Your task to perform on an android device: Search for pizza restaurants on Maps Image 0: 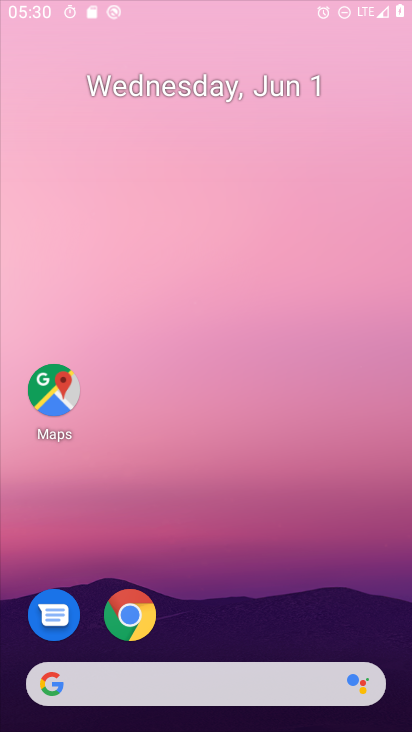
Step 0: drag from (336, 0) to (270, 11)
Your task to perform on an android device: Search for pizza restaurants on Maps Image 1: 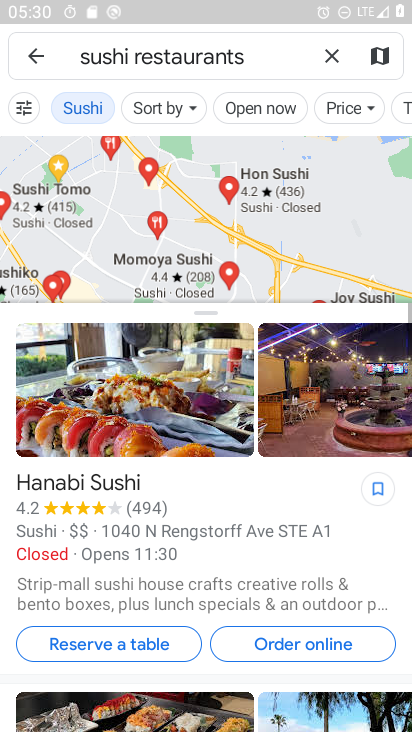
Step 1: press home button
Your task to perform on an android device: Search for pizza restaurants on Maps Image 2: 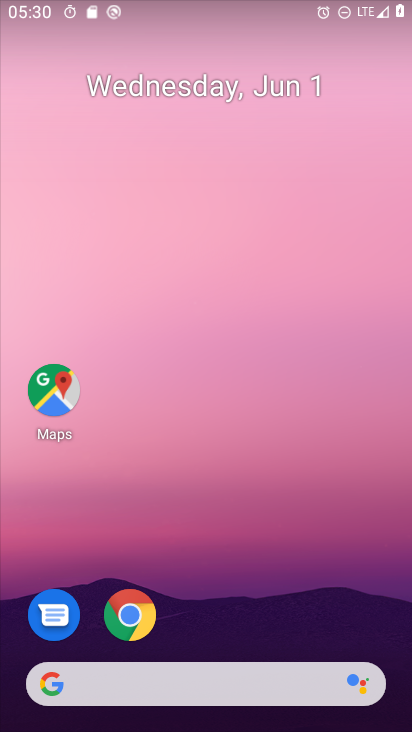
Step 2: drag from (177, 656) to (228, 19)
Your task to perform on an android device: Search for pizza restaurants on Maps Image 3: 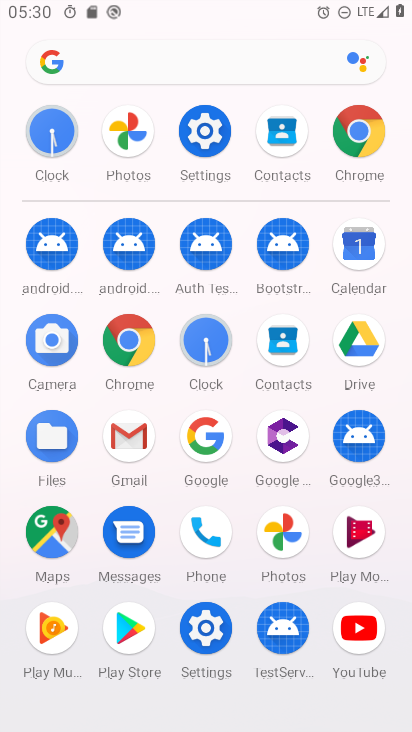
Step 3: click (49, 532)
Your task to perform on an android device: Search for pizza restaurants on Maps Image 4: 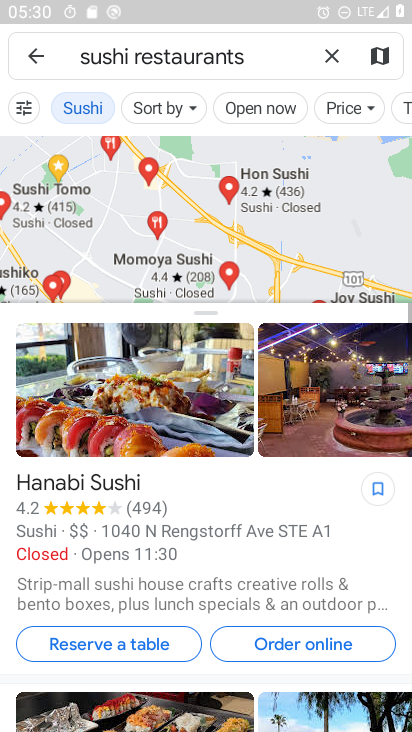
Step 4: click (334, 54)
Your task to perform on an android device: Search for pizza restaurants on Maps Image 5: 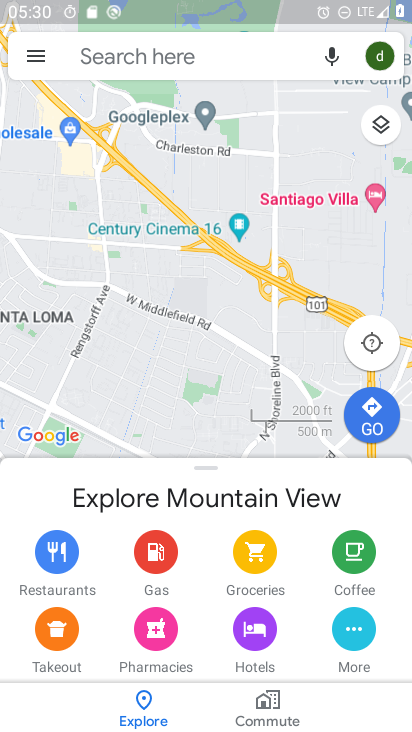
Step 5: click (260, 64)
Your task to perform on an android device: Search for pizza restaurants on Maps Image 6: 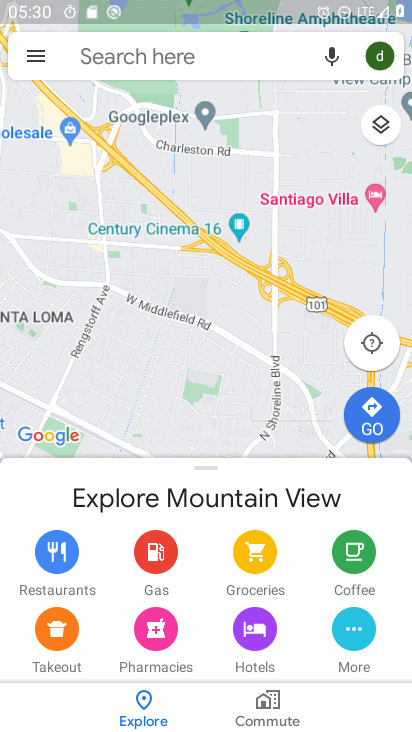
Step 6: click (260, 64)
Your task to perform on an android device: Search for pizza restaurants on Maps Image 7: 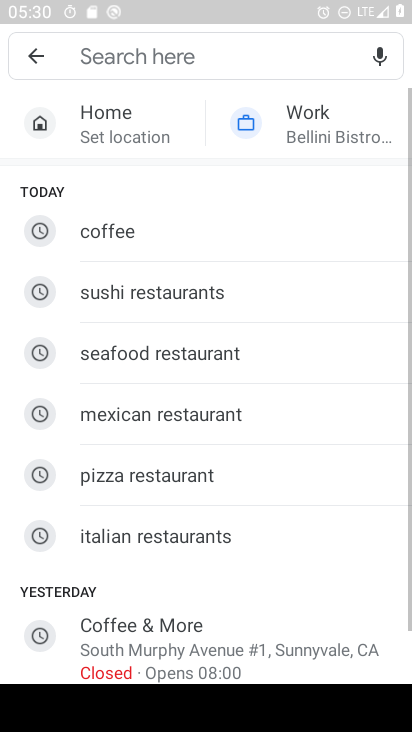
Step 7: click (209, 464)
Your task to perform on an android device: Search for pizza restaurants on Maps Image 8: 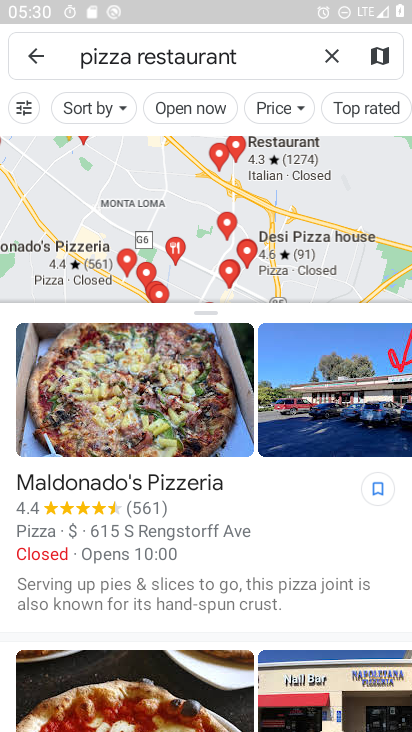
Step 8: task complete